Your task to perform on an android device: turn off translation in the chrome app Image 0: 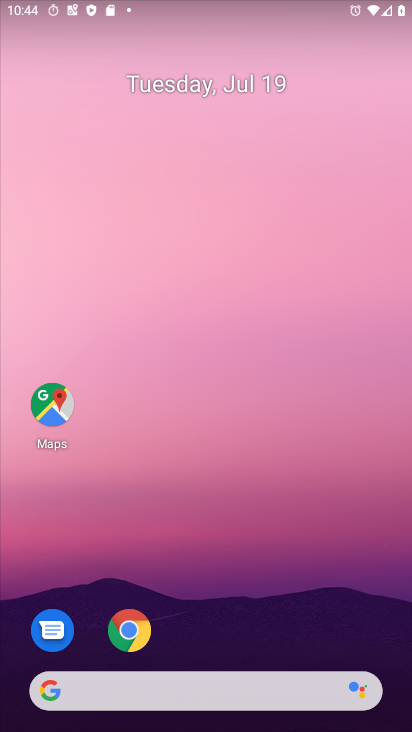
Step 0: press home button
Your task to perform on an android device: turn off translation in the chrome app Image 1: 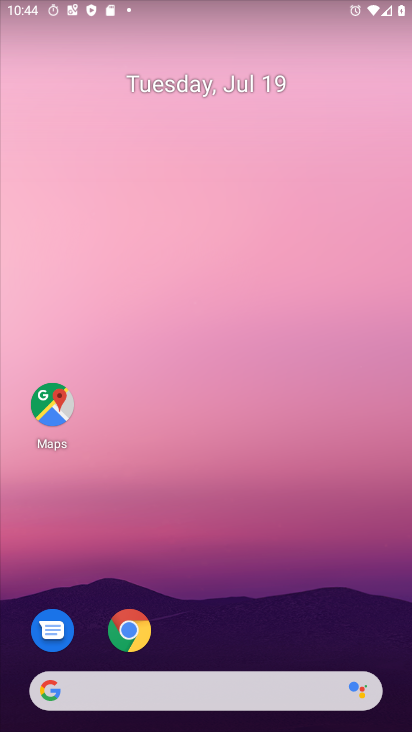
Step 1: click (121, 627)
Your task to perform on an android device: turn off translation in the chrome app Image 2: 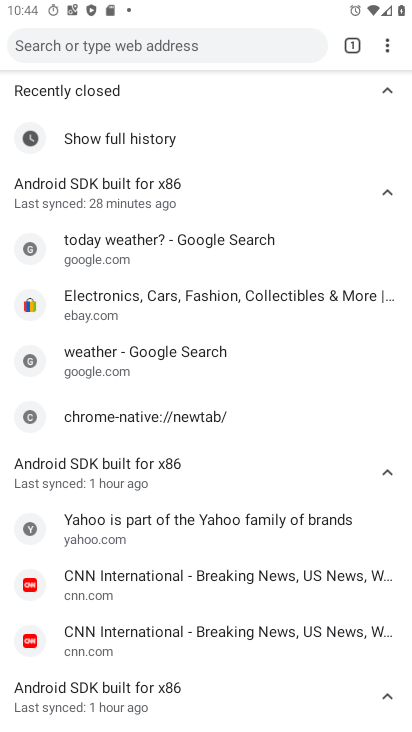
Step 2: click (385, 46)
Your task to perform on an android device: turn off translation in the chrome app Image 3: 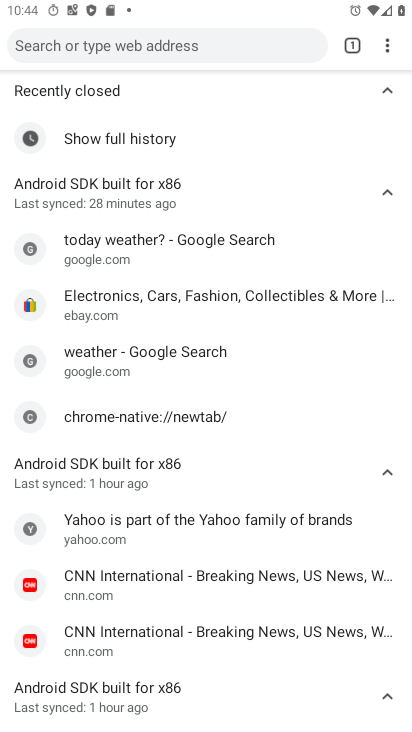
Step 3: drag from (386, 40) to (234, 381)
Your task to perform on an android device: turn off translation in the chrome app Image 4: 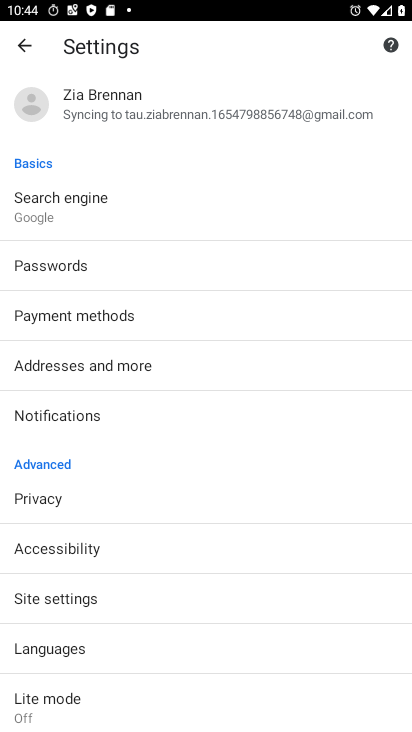
Step 4: click (52, 644)
Your task to perform on an android device: turn off translation in the chrome app Image 5: 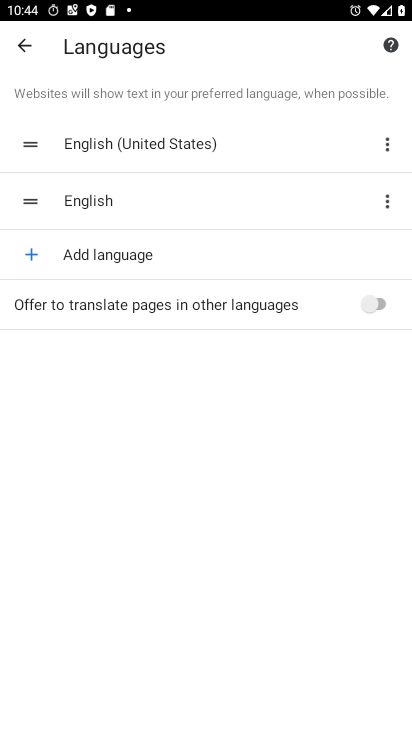
Step 5: task complete